Your task to perform on an android device: clear all cookies in the chrome app Image 0: 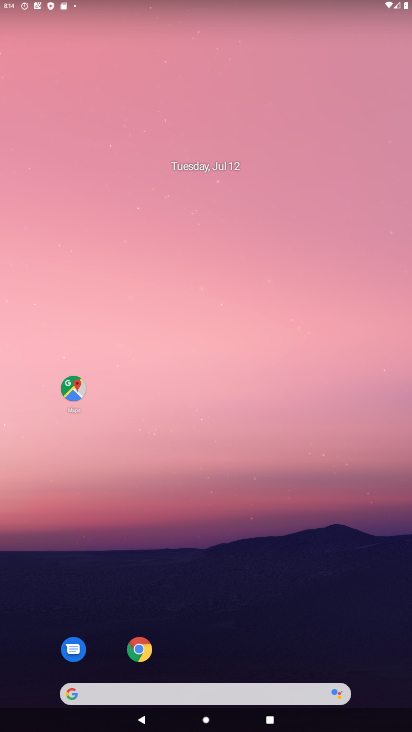
Step 0: drag from (318, 637) to (274, 247)
Your task to perform on an android device: clear all cookies in the chrome app Image 1: 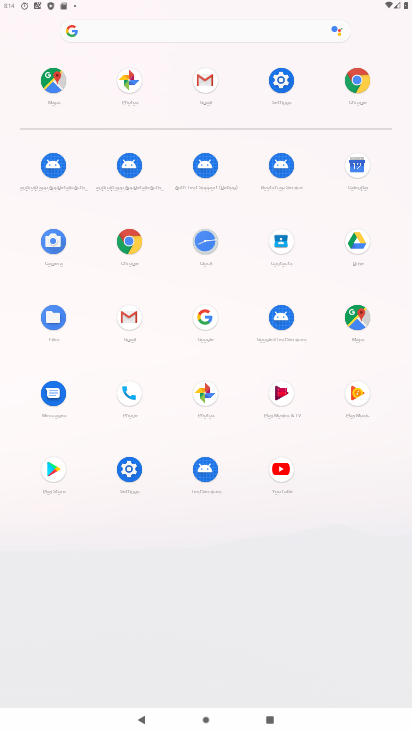
Step 1: click (123, 238)
Your task to perform on an android device: clear all cookies in the chrome app Image 2: 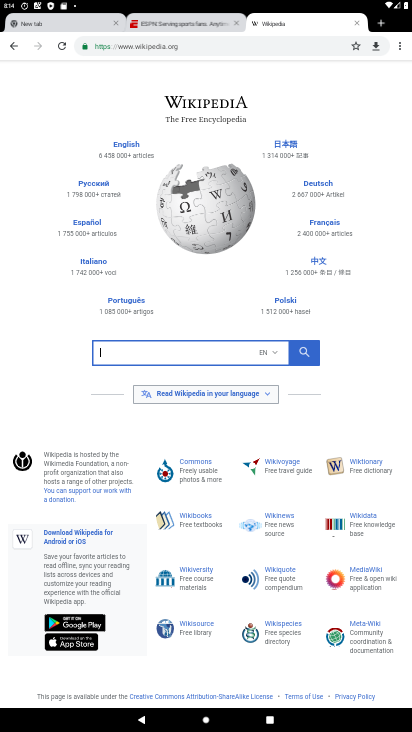
Step 2: drag from (399, 42) to (366, 254)
Your task to perform on an android device: clear all cookies in the chrome app Image 3: 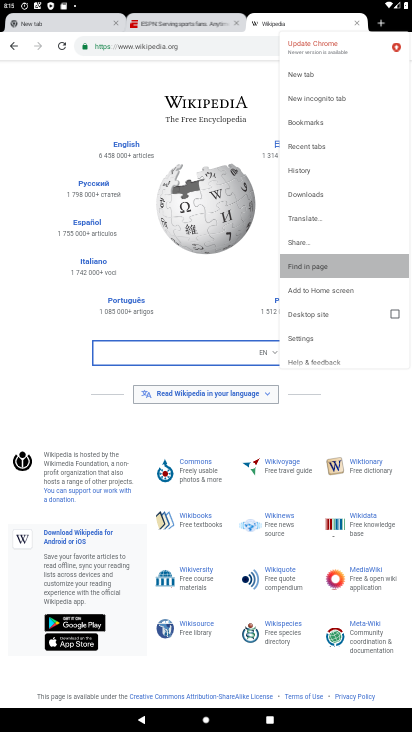
Step 3: drag from (366, 254) to (361, 192)
Your task to perform on an android device: clear all cookies in the chrome app Image 4: 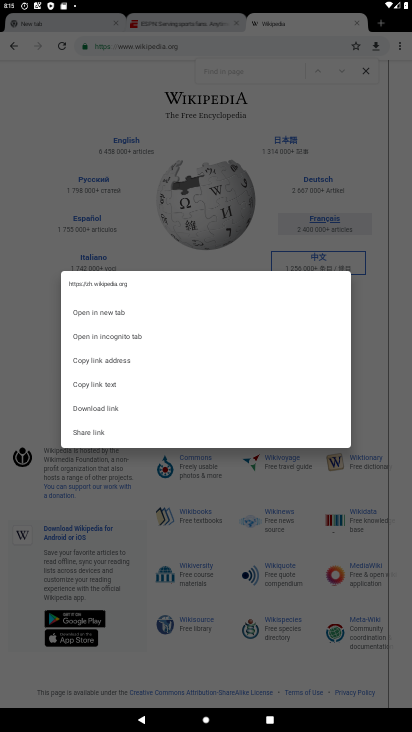
Step 4: click (401, 55)
Your task to perform on an android device: clear all cookies in the chrome app Image 5: 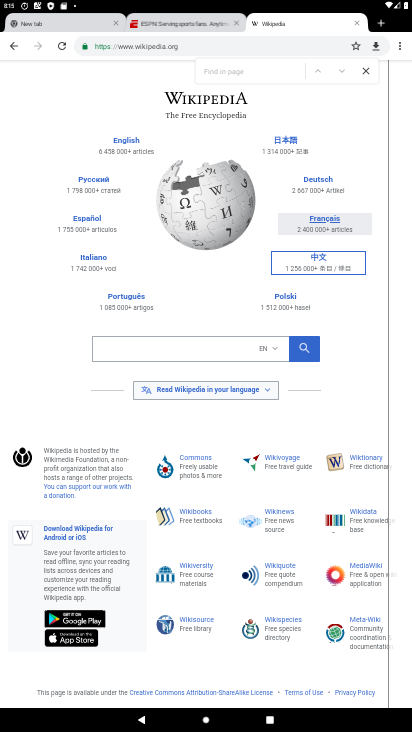
Step 5: drag from (401, 37) to (306, 164)
Your task to perform on an android device: clear all cookies in the chrome app Image 6: 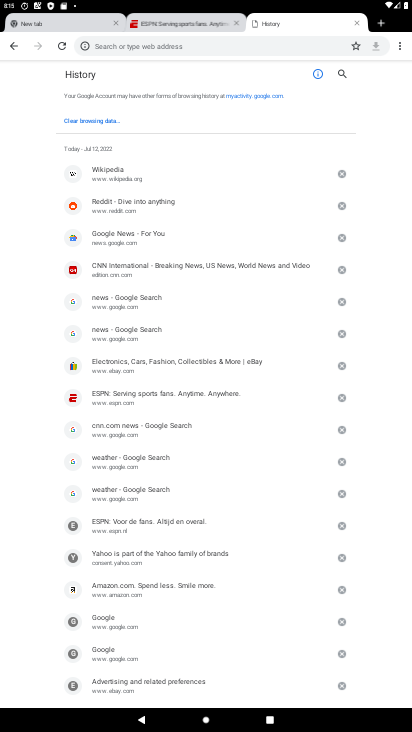
Step 6: click (71, 124)
Your task to perform on an android device: clear all cookies in the chrome app Image 7: 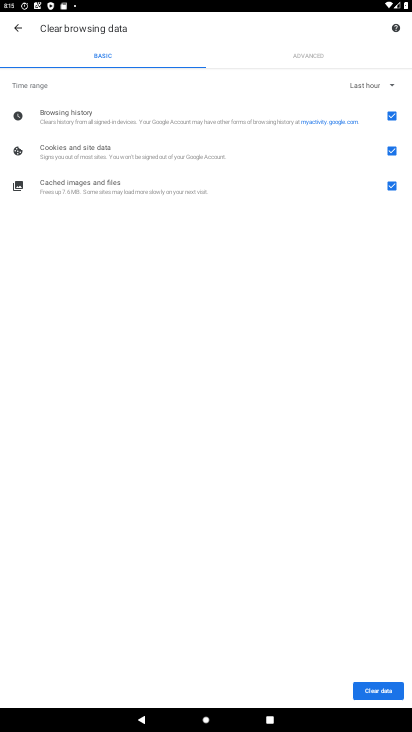
Step 7: click (361, 88)
Your task to perform on an android device: clear all cookies in the chrome app Image 8: 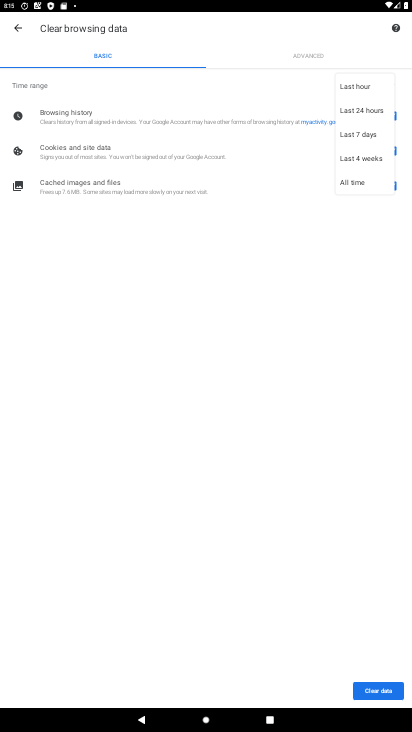
Step 8: click (354, 186)
Your task to perform on an android device: clear all cookies in the chrome app Image 9: 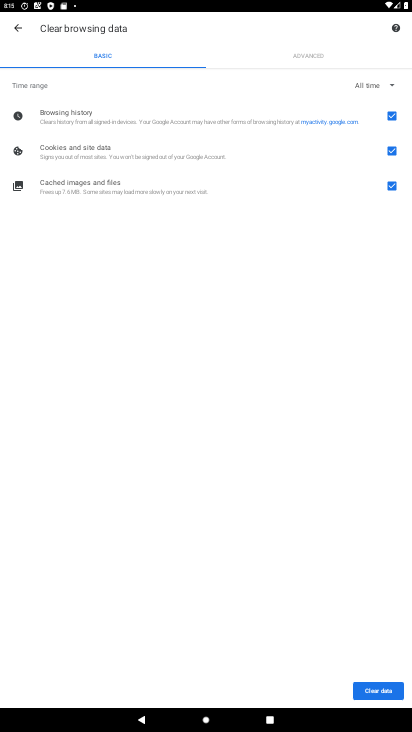
Step 9: click (372, 691)
Your task to perform on an android device: clear all cookies in the chrome app Image 10: 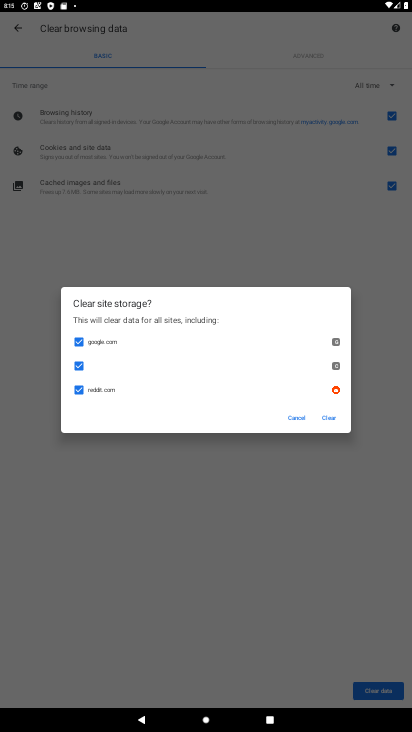
Step 10: click (329, 423)
Your task to perform on an android device: clear all cookies in the chrome app Image 11: 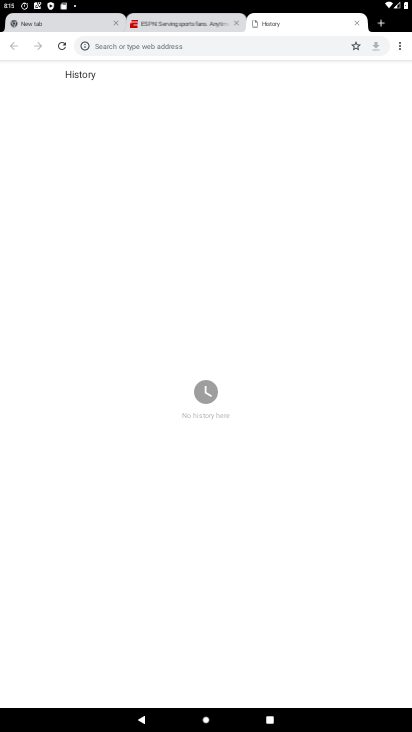
Step 11: task complete